Your task to perform on an android device: Go to accessibility settings Image 0: 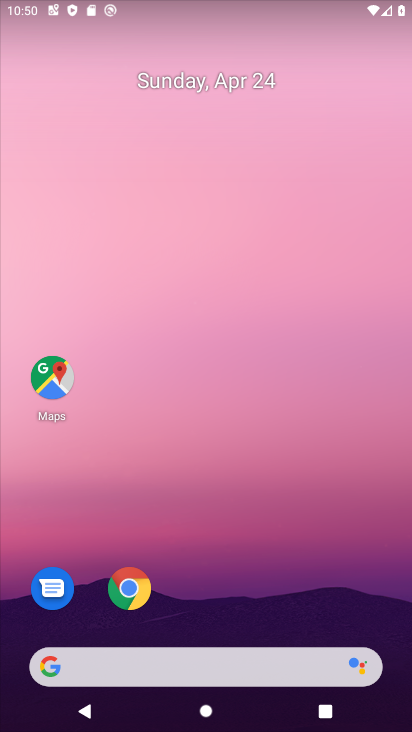
Step 0: drag from (249, 574) to (238, 18)
Your task to perform on an android device: Go to accessibility settings Image 1: 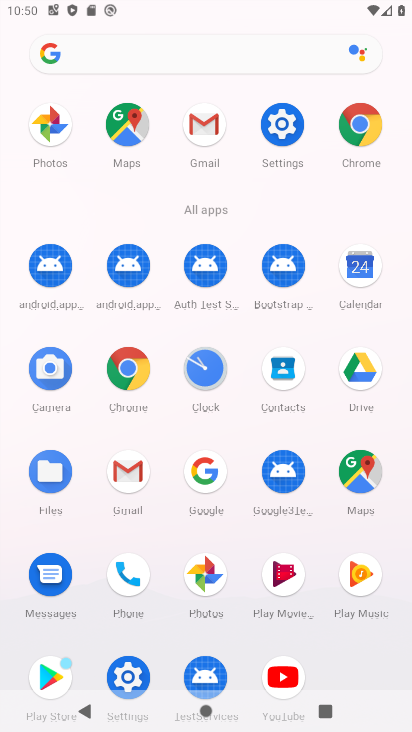
Step 1: click (284, 125)
Your task to perform on an android device: Go to accessibility settings Image 2: 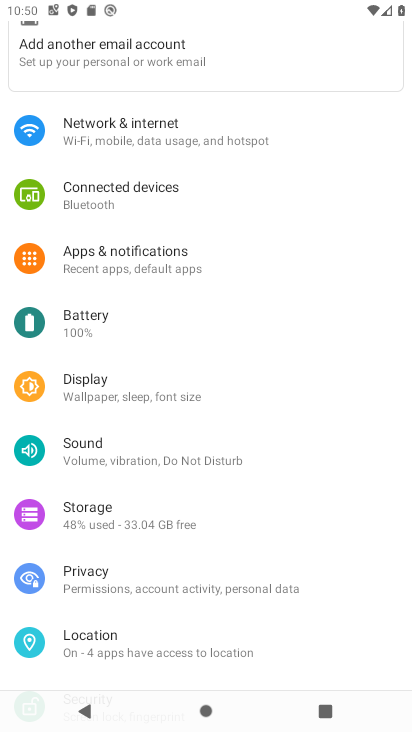
Step 2: drag from (195, 606) to (241, 110)
Your task to perform on an android device: Go to accessibility settings Image 3: 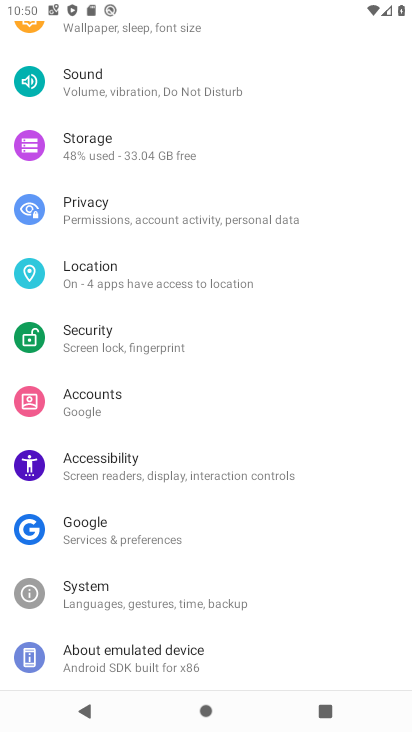
Step 3: click (171, 466)
Your task to perform on an android device: Go to accessibility settings Image 4: 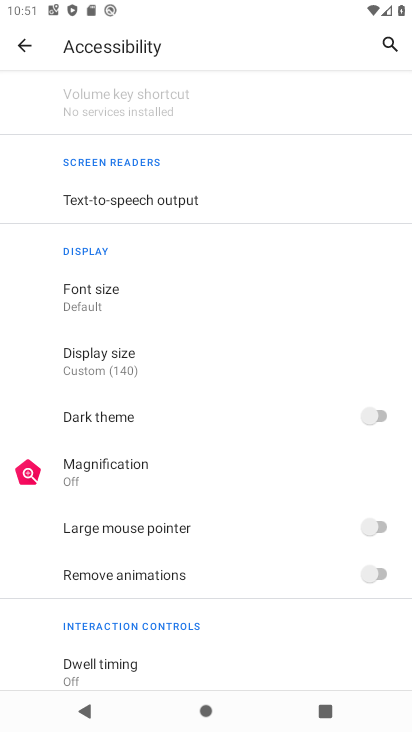
Step 4: task complete